Your task to perform on an android device: Is it going to rain tomorrow? Image 0: 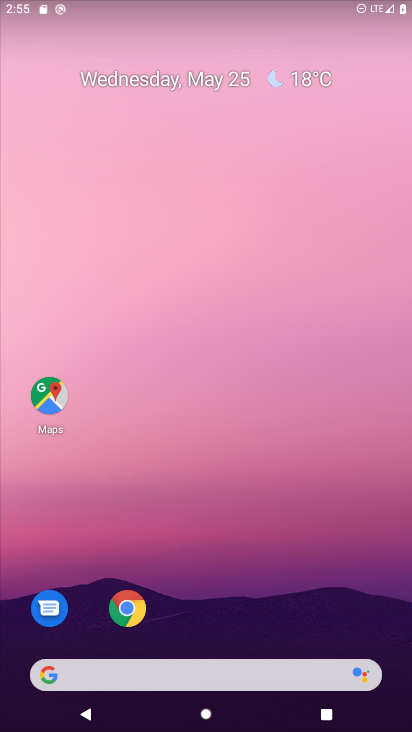
Step 0: click (297, 76)
Your task to perform on an android device: Is it going to rain tomorrow? Image 1: 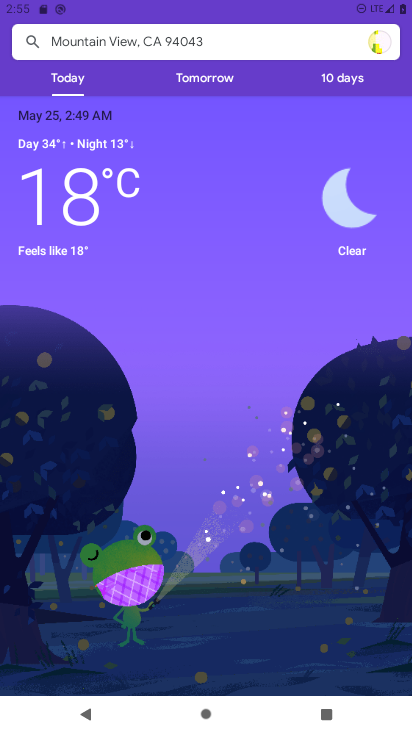
Step 1: click (207, 76)
Your task to perform on an android device: Is it going to rain tomorrow? Image 2: 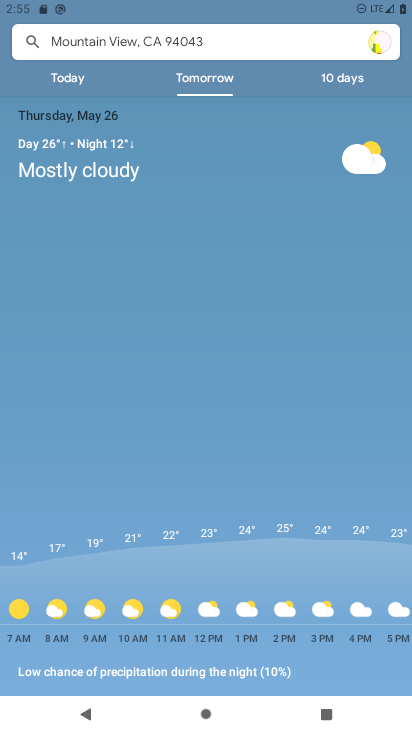
Step 2: task complete